Your task to perform on an android device: Clear the cart on bestbuy.com. Search for "macbook pro" on bestbuy.com, select the first entry, and add it to the cart. Image 0: 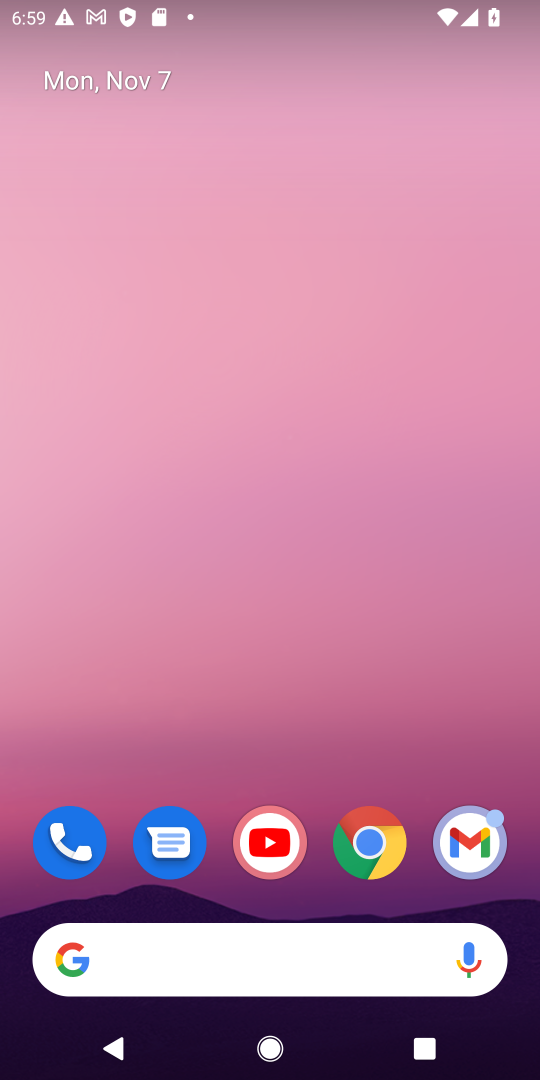
Step 0: drag from (365, 891) to (533, 189)
Your task to perform on an android device: Clear the cart on bestbuy.com. Search for "macbook pro" on bestbuy.com, select the first entry, and add it to the cart. Image 1: 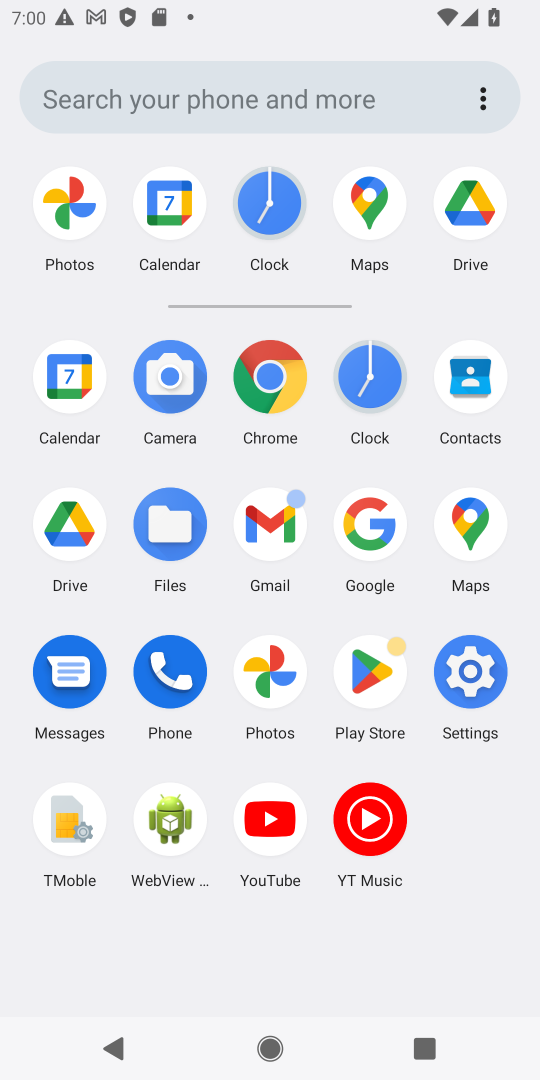
Step 1: click (265, 371)
Your task to perform on an android device: Clear the cart on bestbuy.com. Search for "macbook pro" on bestbuy.com, select the first entry, and add it to the cart. Image 2: 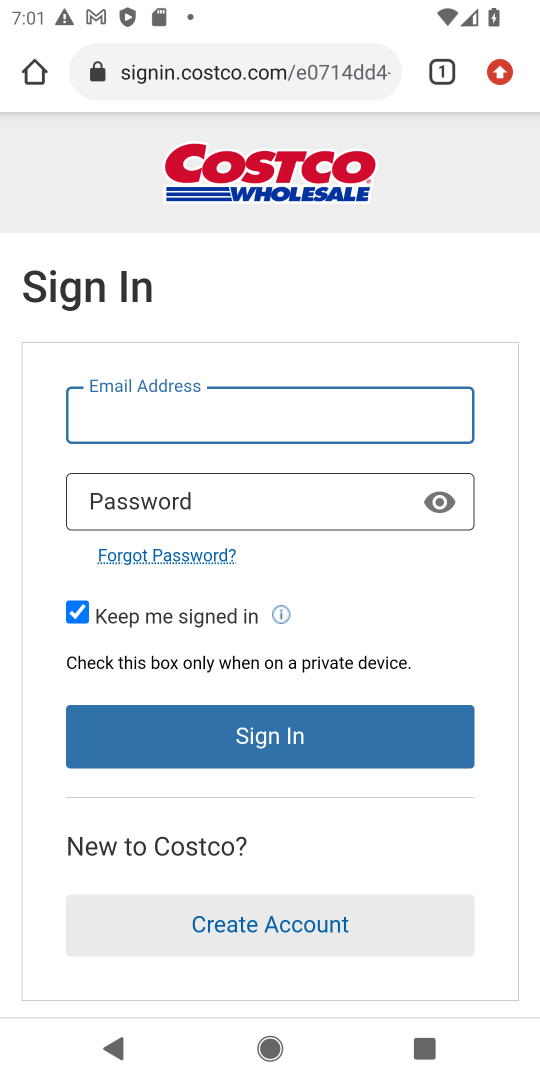
Step 2: click (211, 89)
Your task to perform on an android device: Clear the cart on bestbuy.com. Search for "macbook pro" on bestbuy.com, select the first entry, and add it to the cart. Image 3: 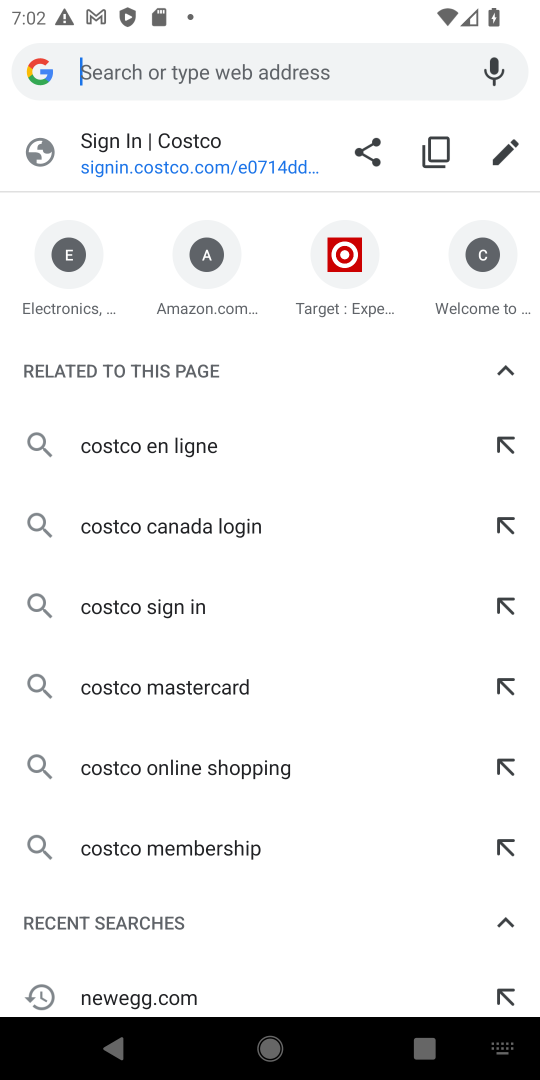
Step 3: type "bestbuy.com"
Your task to perform on an android device: Clear the cart on bestbuy.com. Search for "macbook pro" on bestbuy.com, select the first entry, and add it to the cart. Image 4: 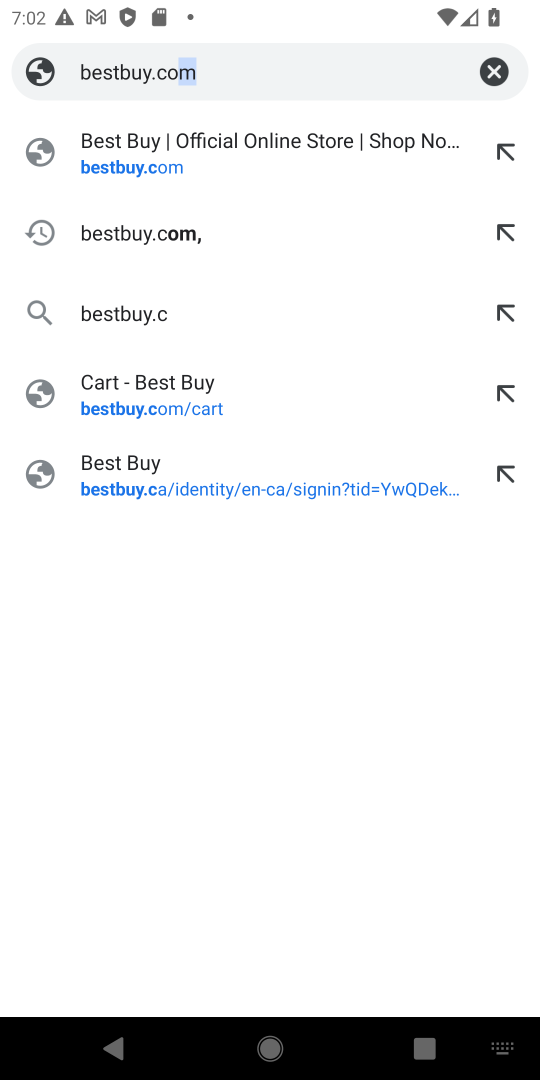
Step 4: press enter
Your task to perform on an android device: Clear the cart on bestbuy.com. Search for "macbook pro" on bestbuy.com, select the first entry, and add it to the cart. Image 5: 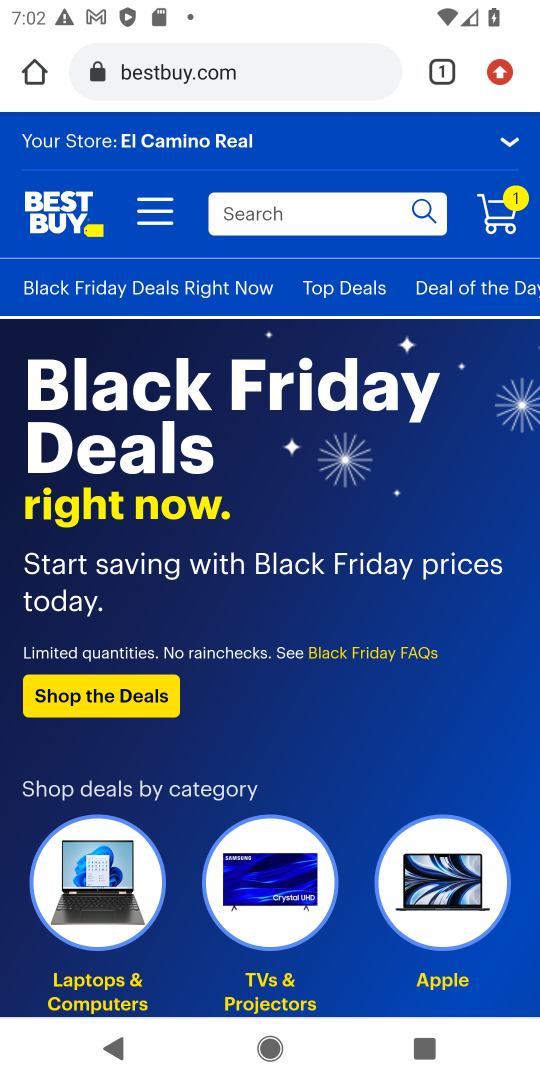
Step 5: click (506, 208)
Your task to perform on an android device: Clear the cart on bestbuy.com. Search for "macbook pro" on bestbuy.com, select the first entry, and add it to the cart. Image 6: 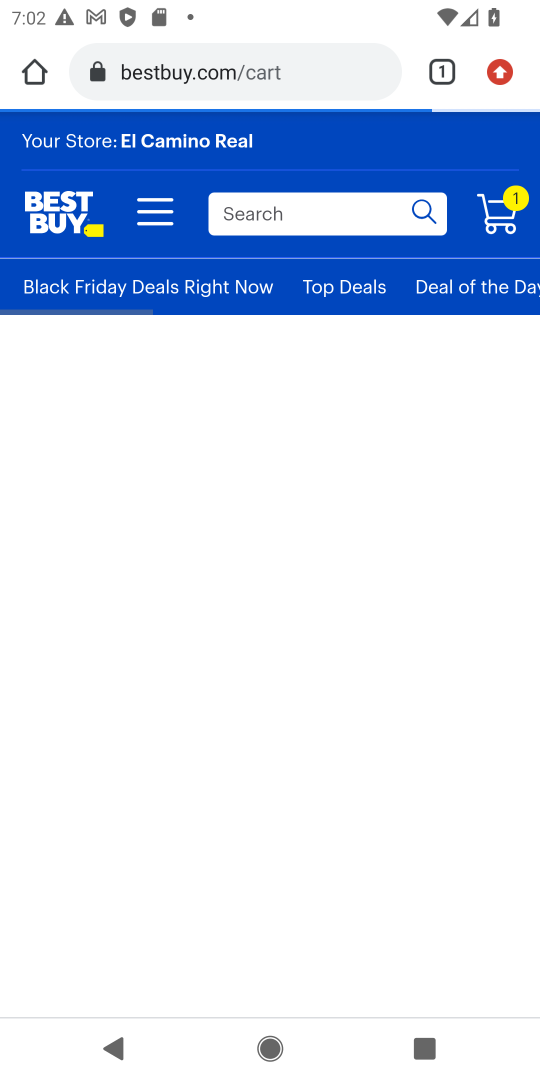
Step 6: click (506, 208)
Your task to perform on an android device: Clear the cart on bestbuy.com. Search for "macbook pro" on bestbuy.com, select the first entry, and add it to the cart. Image 7: 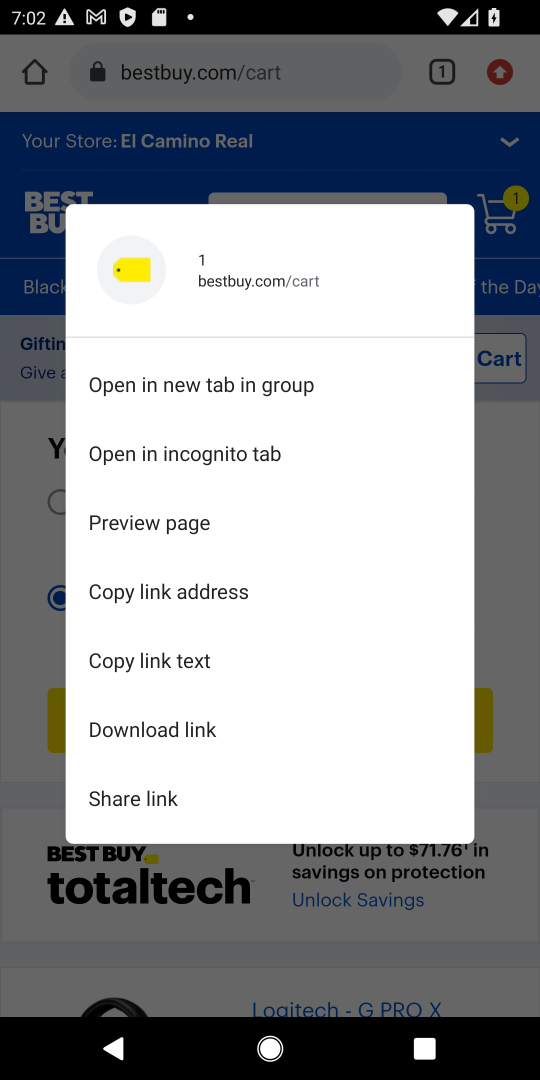
Step 7: click (498, 212)
Your task to perform on an android device: Clear the cart on bestbuy.com. Search for "macbook pro" on bestbuy.com, select the first entry, and add it to the cart. Image 8: 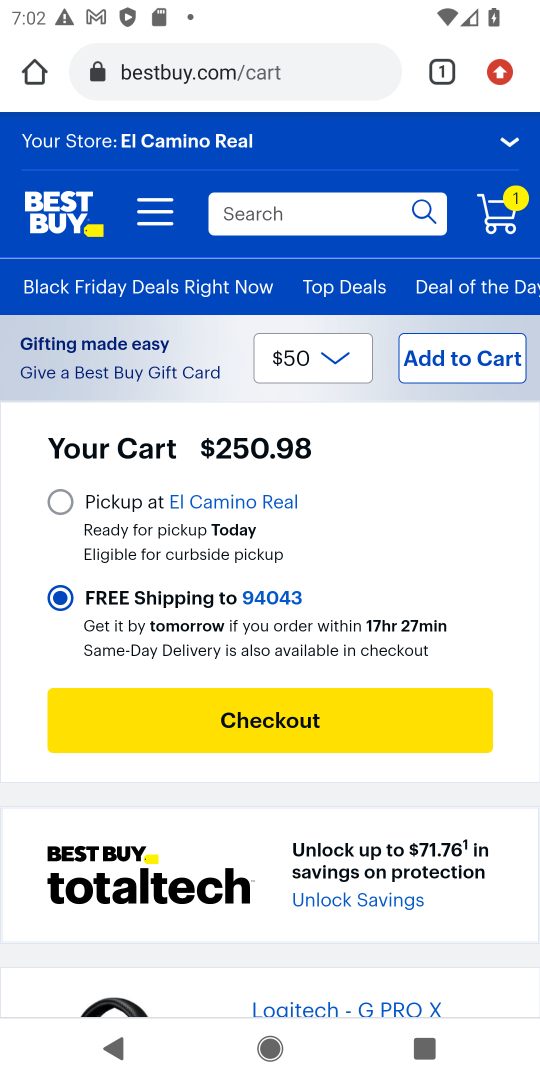
Step 8: click (508, 216)
Your task to perform on an android device: Clear the cart on bestbuy.com. Search for "macbook pro" on bestbuy.com, select the first entry, and add it to the cart. Image 9: 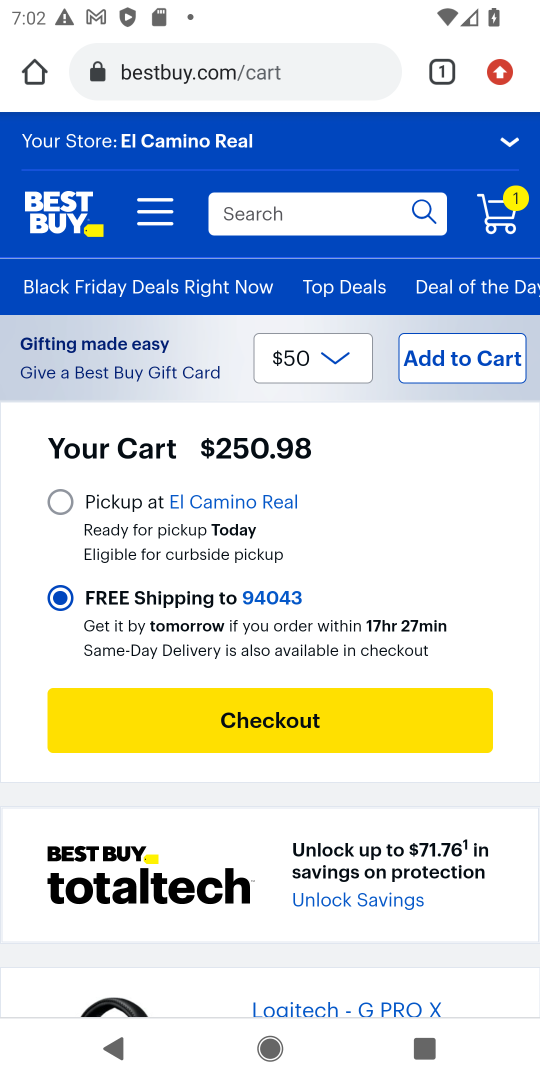
Step 9: drag from (234, 874) to (291, 461)
Your task to perform on an android device: Clear the cart on bestbuy.com. Search for "macbook pro" on bestbuy.com, select the first entry, and add it to the cart. Image 10: 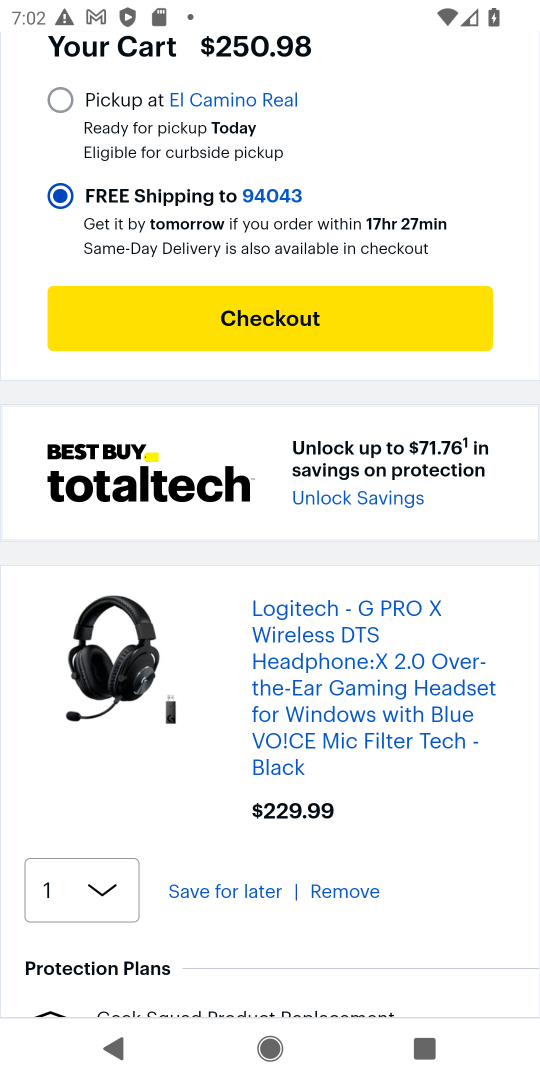
Step 10: click (356, 886)
Your task to perform on an android device: Clear the cart on bestbuy.com. Search for "macbook pro" on bestbuy.com, select the first entry, and add it to the cart. Image 11: 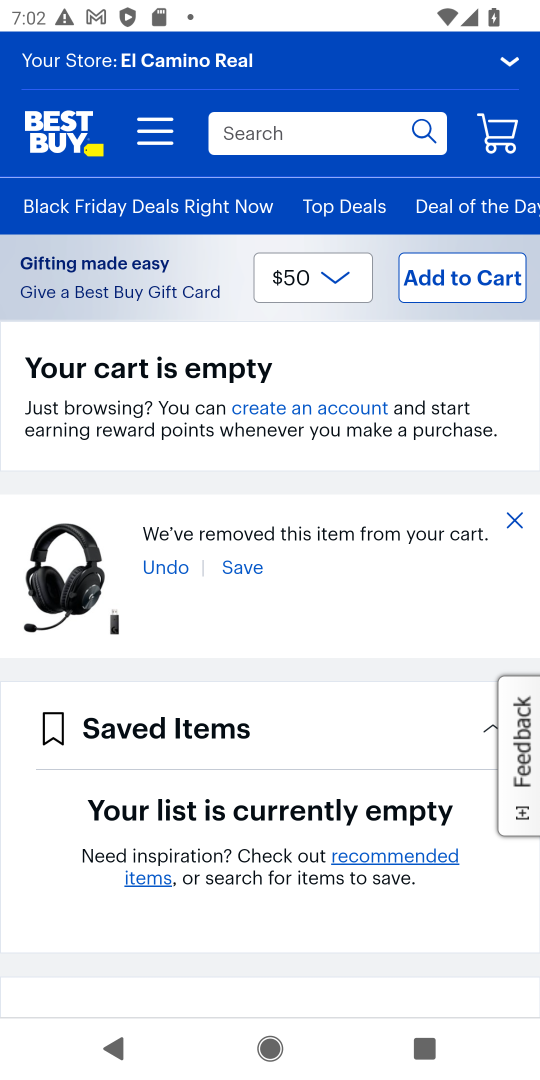
Step 11: click (311, 149)
Your task to perform on an android device: Clear the cart on bestbuy.com. Search for "macbook pro" on bestbuy.com, select the first entry, and add it to the cart. Image 12: 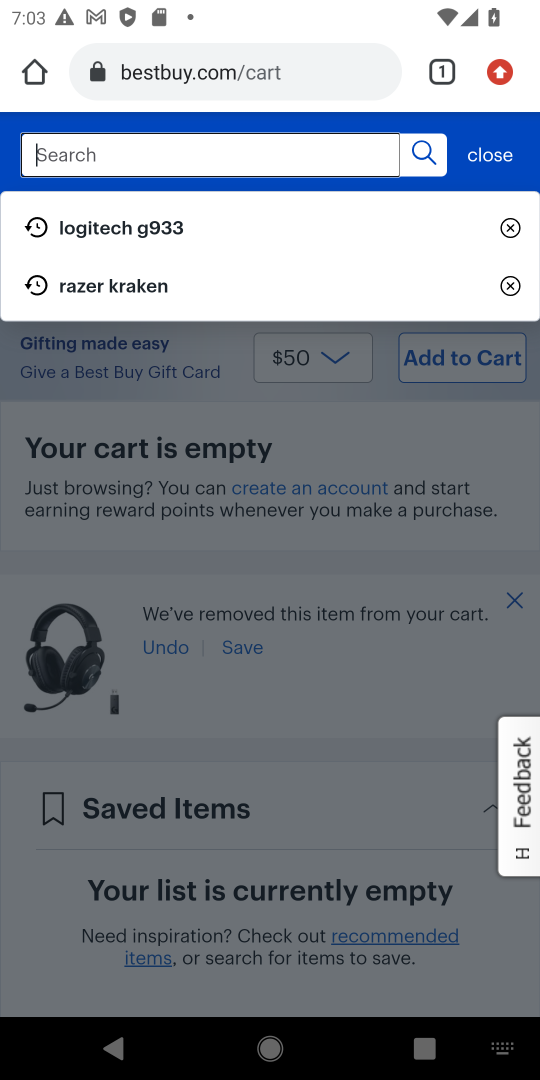
Step 12: type "macbook pro""
Your task to perform on an android device: Clear the cart on bestbuy.com. Search for "macbook pro" on bestbuy.com, select the first entry, and add it to the cart. Image 13: 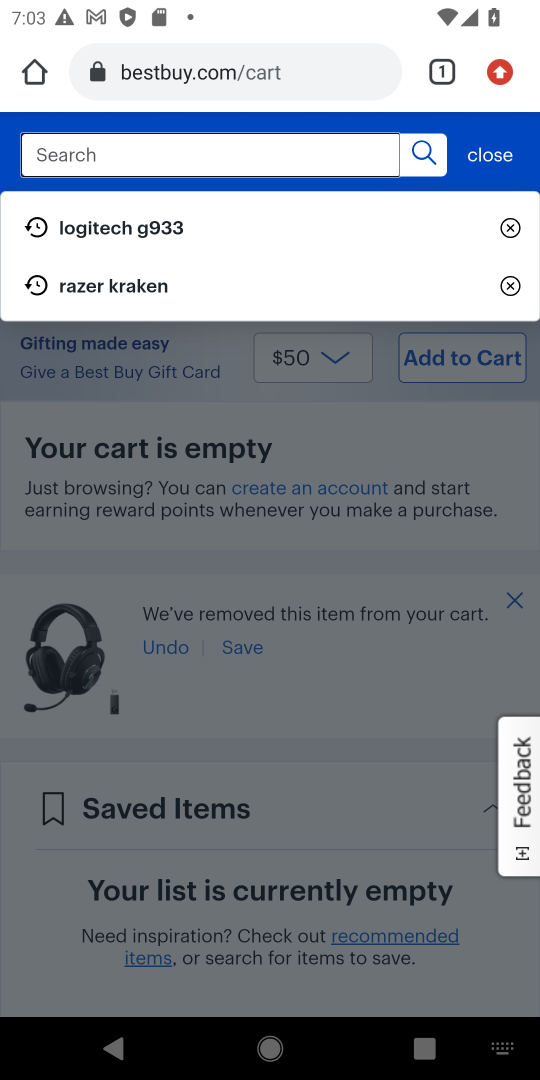
Step 13: press enter
Your task to perform on an android device: Clear the cart on bestbuy.com. Search for "macbook pro" on bestbuy.com, select the first entry, and add it to the cart. Image 14: 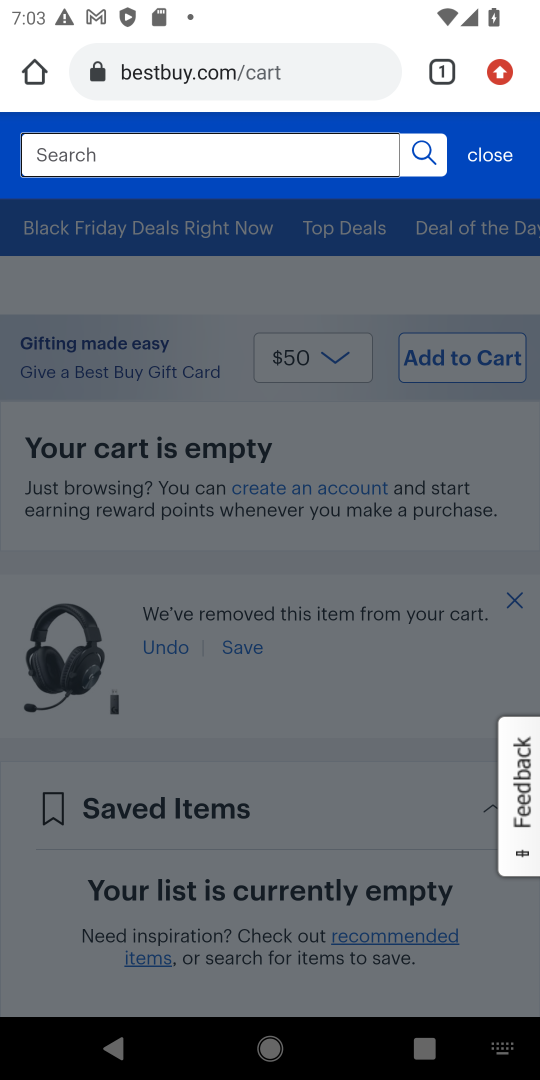
Step 14: type "macbook pro""
Your task to perform on an android device: Clear the cart on bestbuy.com. Search for "macbook pro" on bestbuy.com, select the first entry, and add it to the cart. Image 15: 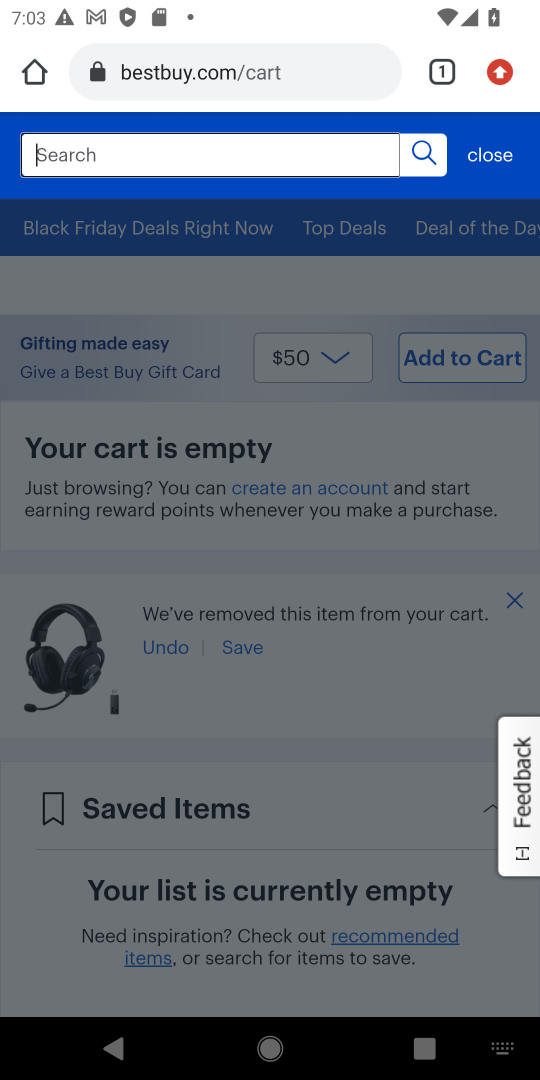
Step 15: press enter
Your task to perform on an android device: Clear the cart on bestbuy.com. Search for "macbook pro" on bestbuy.com, select the first entry, and add it to the cart. Image 16: 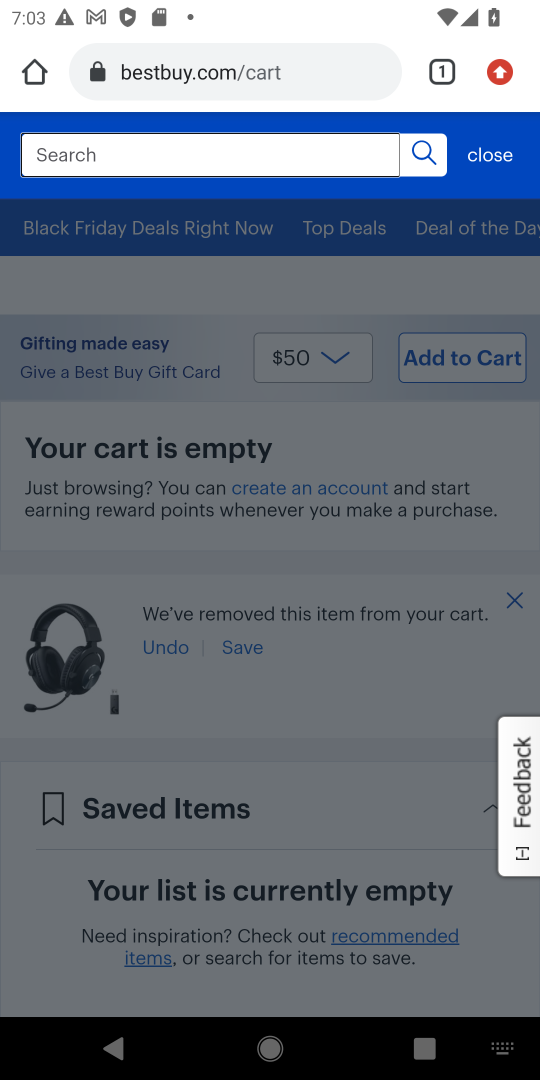
Step 16: type "macbook pro"
Your task to perform on an android device: Clear the cart on bestbuy.com. Search for "macbook pro" on bestbuy.com, select the first entry, and add it to the cart. Image 17: 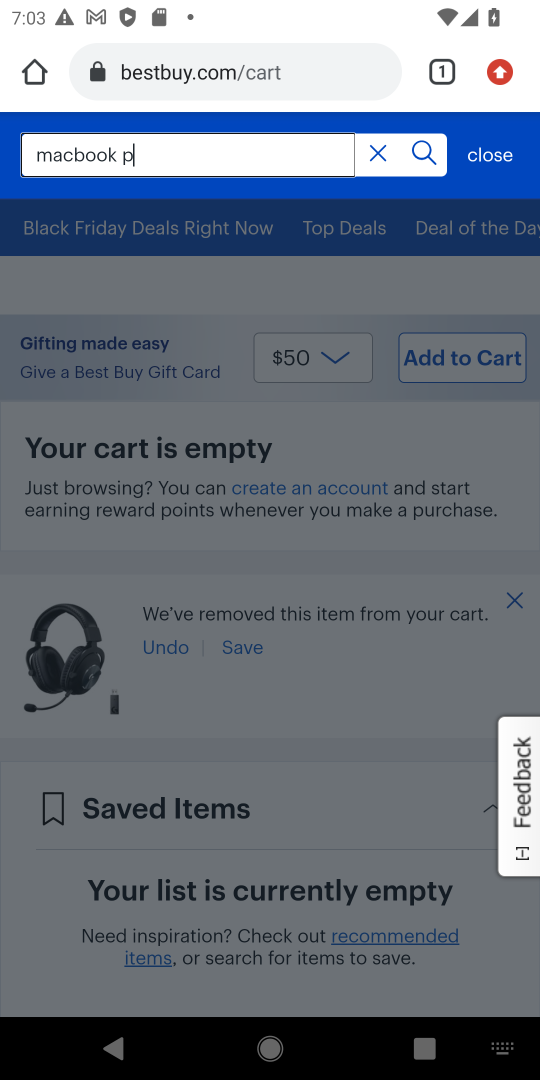
Step 17: press enter
Your task to perform on an android device: Clear the cart on bestbuy.com. Search for "macbook pro" on bestbuy.com, select the first entry, and add it to the cart. Image 18: 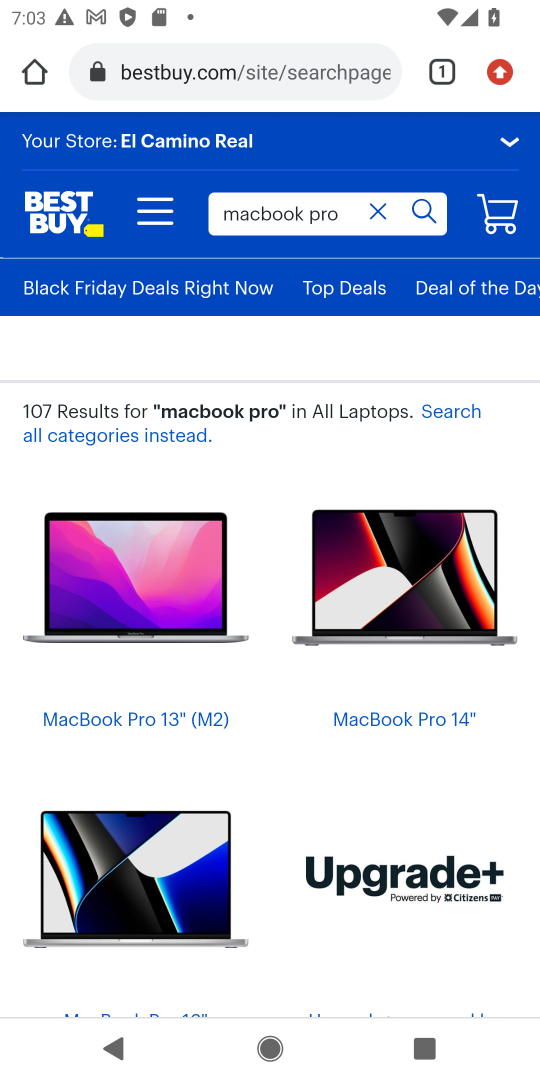
Step 18: drag from (203, 869) to (306, 463)
Your task to perform on an android device: Clear the cart on bestbuy.com. Search for "macbook pro" on bestbuy.com, select the first entry, and add it to the cart. Image 19: 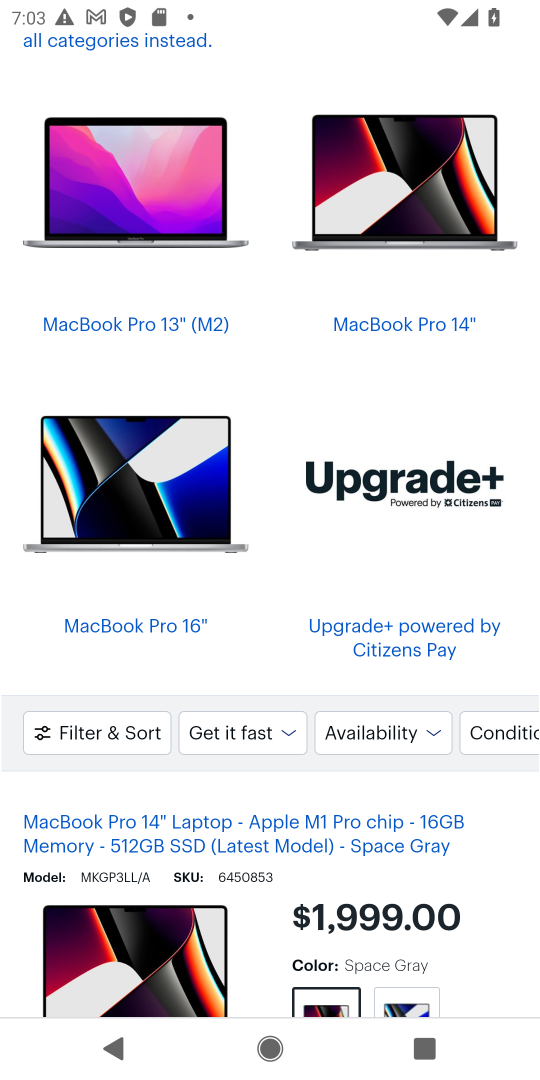
Step 19: drag from (170, 931) to (270, 459)
Your task to perform on an android device: Clear the cart on bestbuy.com. Search for "macbook pro" on bestbuy.com, select the first entry, and add it to the cart. Image 20: 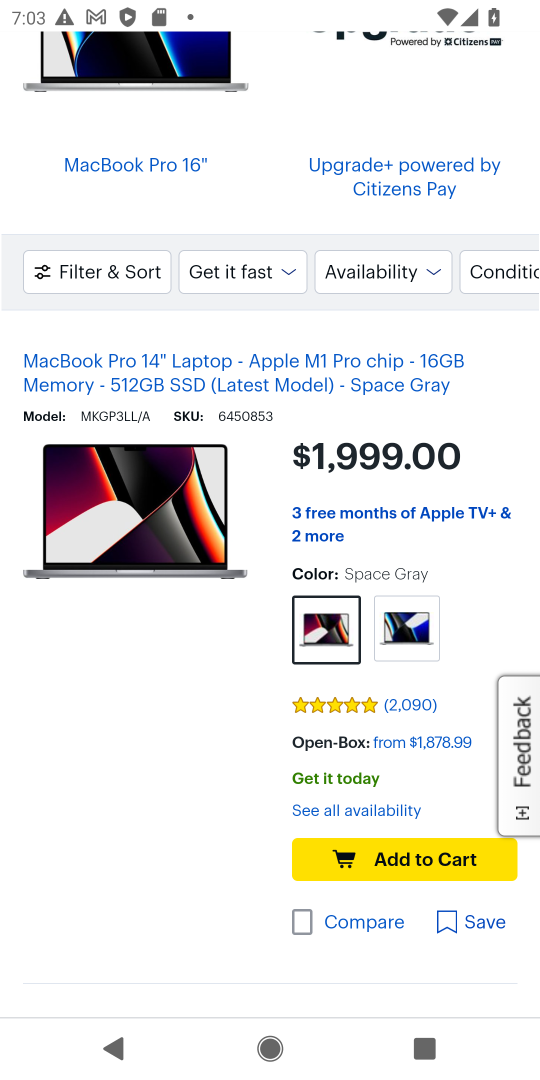
Step 20: click (435, 860)
Your task to perform on an android device: Clear the cart on bestbuy.com. Search for "macbook pro" on bestbuy.com, select the first entry, and add it to the cart. Image 21: 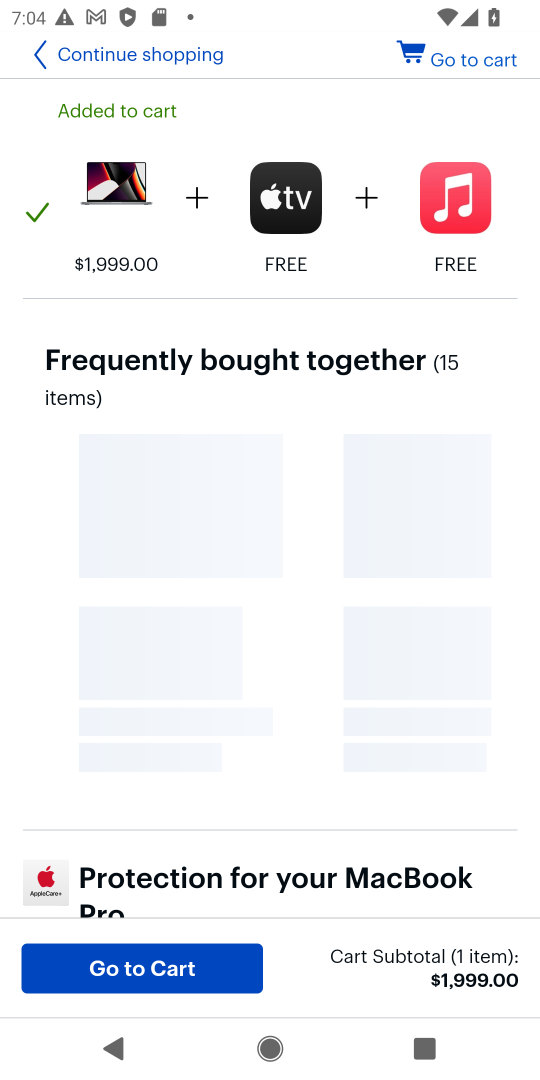
Step 21: click (96, 966)
Your task to perform on an android device: Clear the cart on bestbuy.com. Search for "macbook pro" on bestbuy.com, select the first entry, and add it to the cart. Image 22: 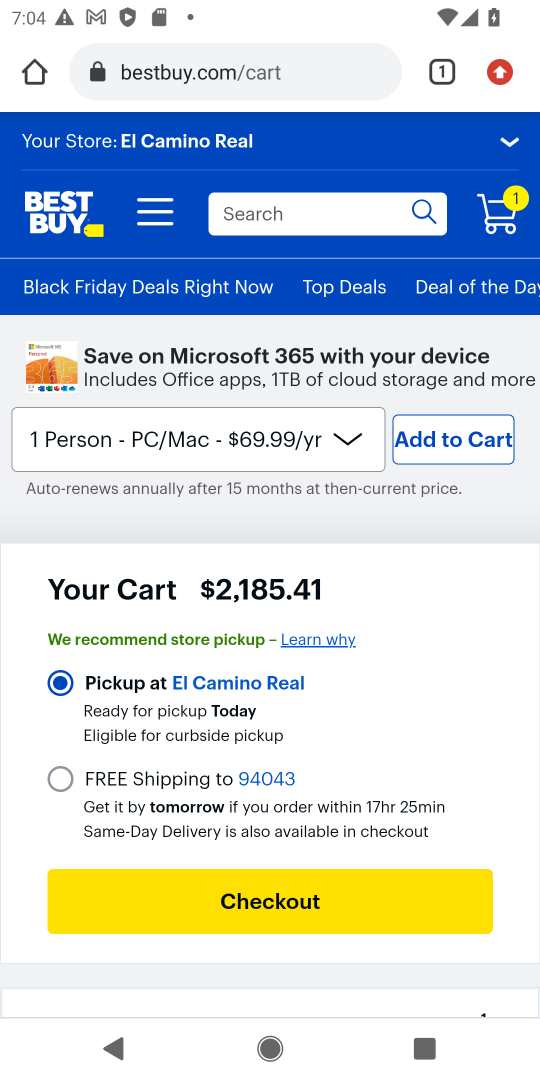
Step 22: task complete